Your task to perform on an android device: Go to network settings Image 0: 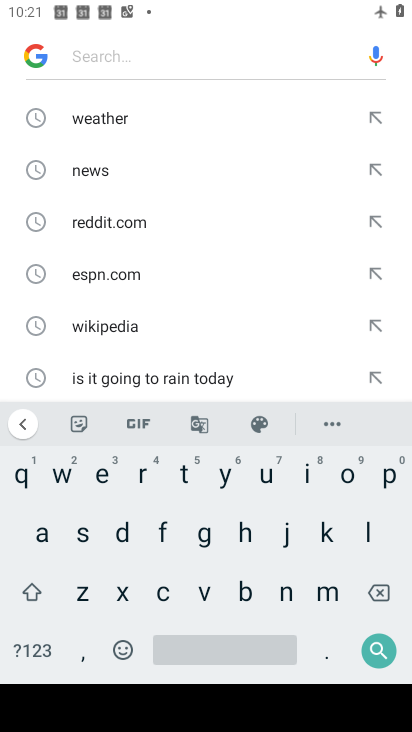
Step 0: press home button
Your task to perform on an android device: Go to network settings Image 1: 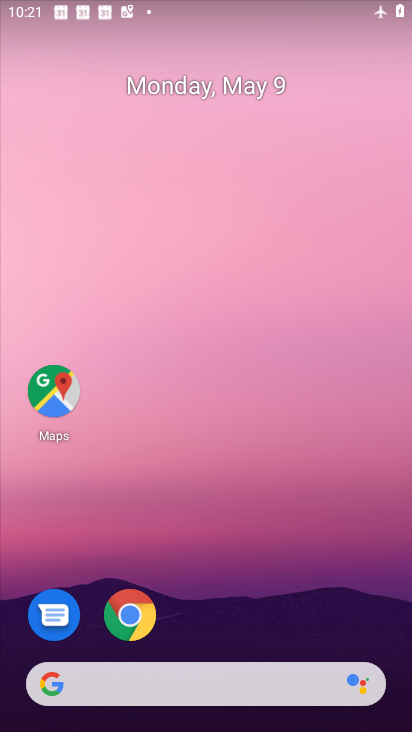
Step 1: drag from (239, 709) to (294, 69)
Your task to perform on an android device: Go to network settings Image 2: 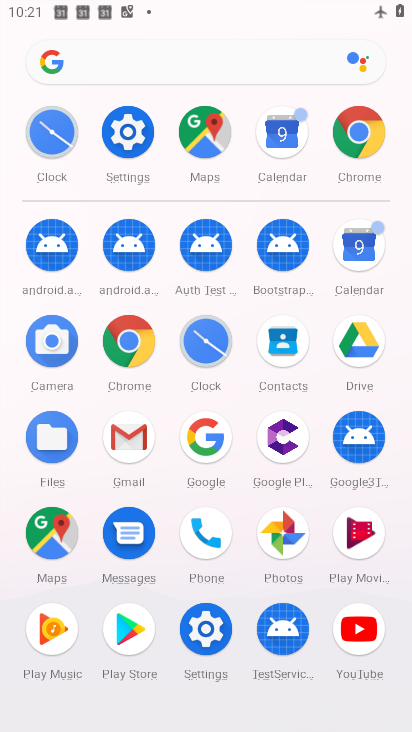
Step 2: click (210, 623)
Your task to perform on an android device: Go to network settings Image 3: 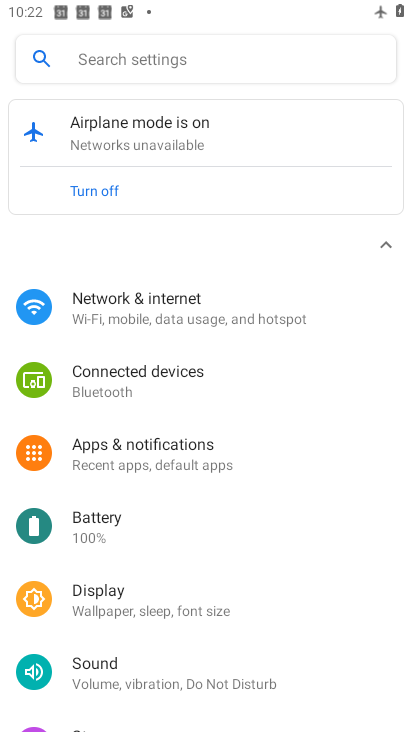
Step 3: click (85, 184)
Your task to perform on an android device: Go to network settings Image 4: 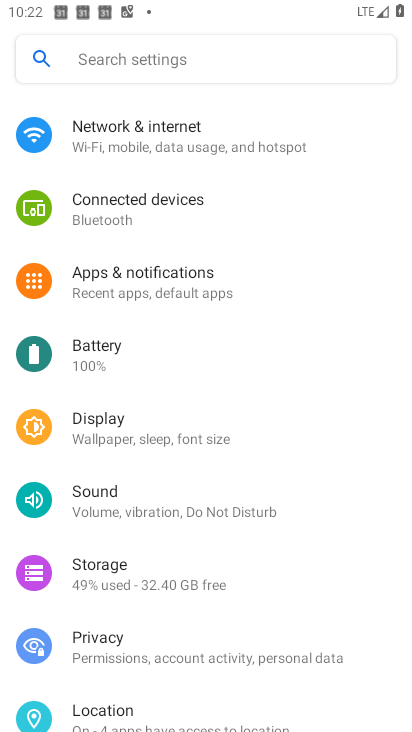
Step 4: click (128, 154)
Your task to perform on an android device: Go to network settings Image 5: 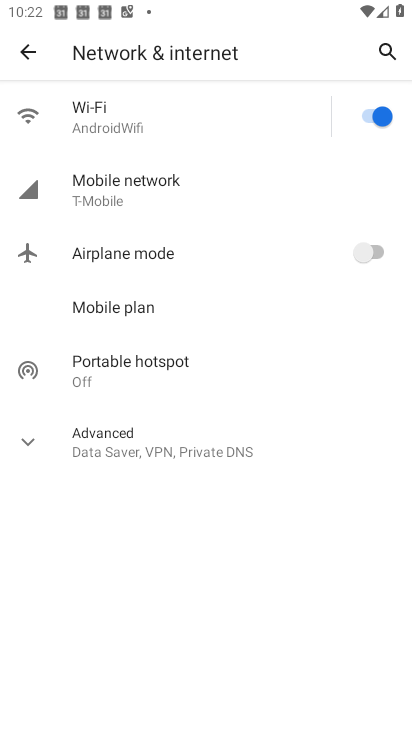
Step 5: task complete